Your task to perform on an android device: What is the recent news? Image 0: 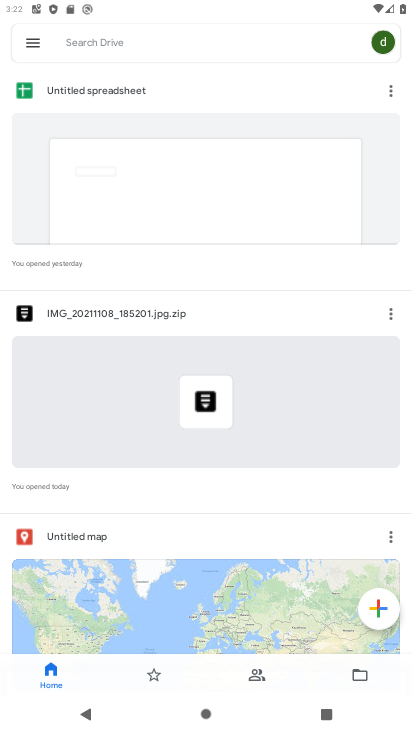
Step 0: press home button
Your task to perform on an android device: What is the recent news? Image 1: 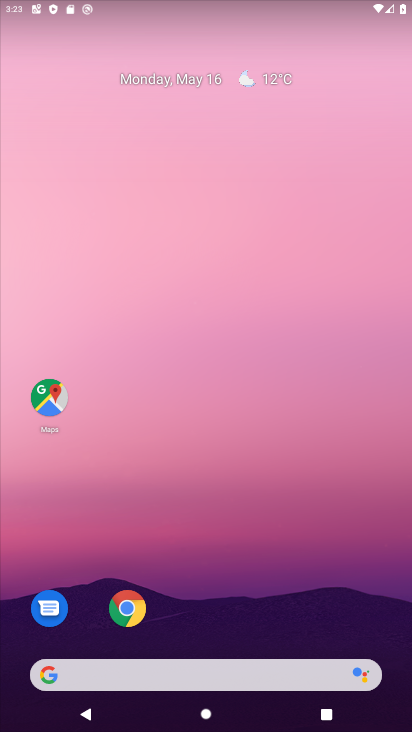
Step 1: click (132, 603)
Your task to perform on an android device: What is the recent news? Image 2: 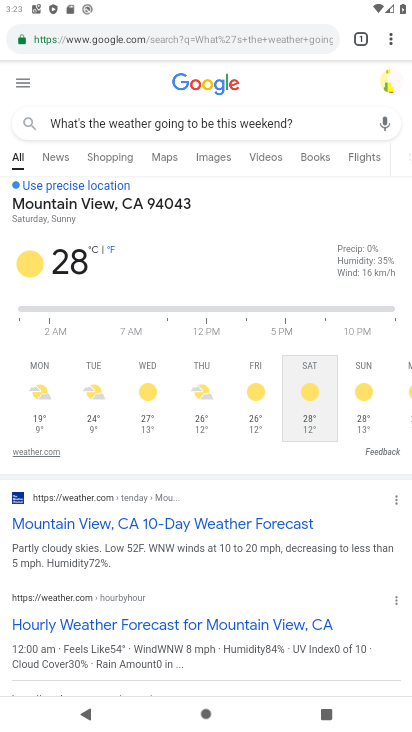
Step 2: click (119, 35)
Your task to perform on an android device: What is the recent news? Image 3: 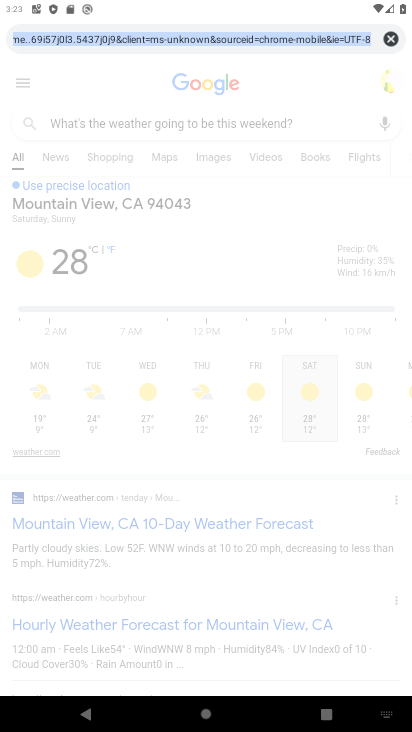
Step 3: type "news"
Your task to perform on an android device: What is the recent news? Image 4: 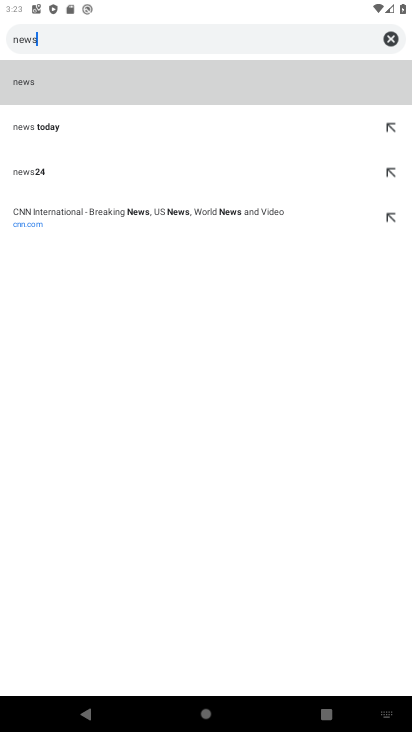
Step 4: click (132, 100)
Your task to perform on an android device: What is the recent news? Image 5: 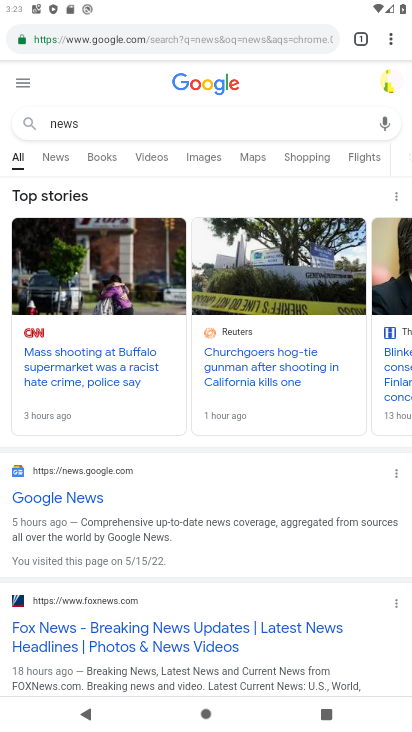
Step 5: task complete